Your task to perform on an android device: set default search engine in the chrome app Image 0: 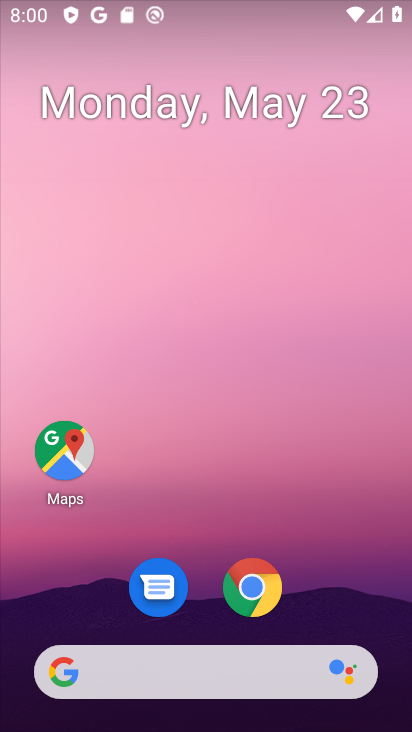
Step 0: click (264, 576)
Your task to perform on an android device: set default search engine in the chrome app Image 1: 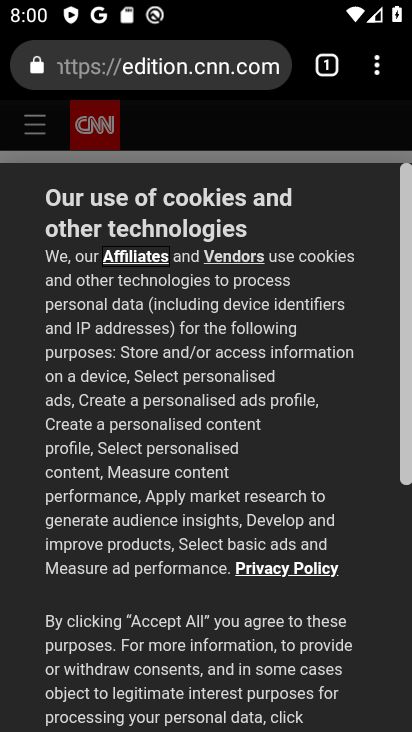
Step 1: drag from (370, 70) to (165, 630)
Your task to perform on an android device: set default search engine in the chrome app Image 2: 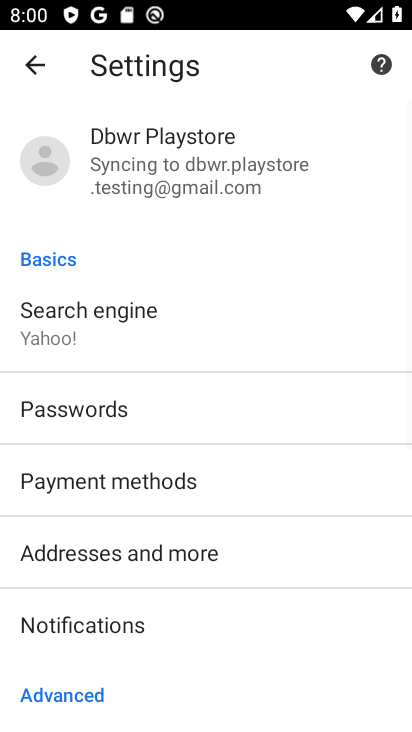
Step 2: drag from (140, 659) to (239, 92)
Your task to perform on an android device: set default search engine in the chrome app Image 3: 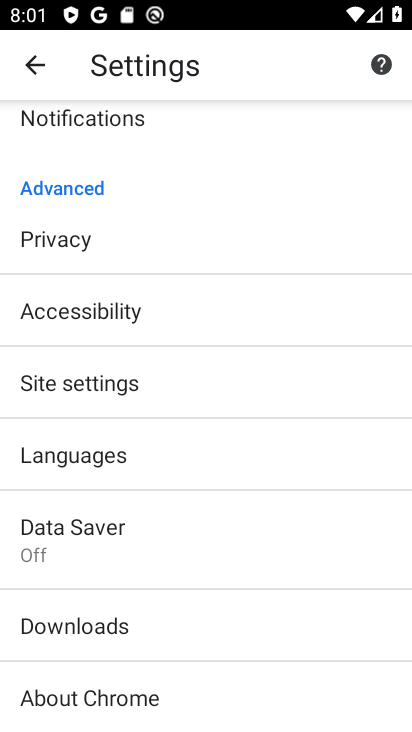
Step 3: drag from (195, 621) to (325, 107)
Your task to perform on an android device: set default search engine in the chrome app Image 4: 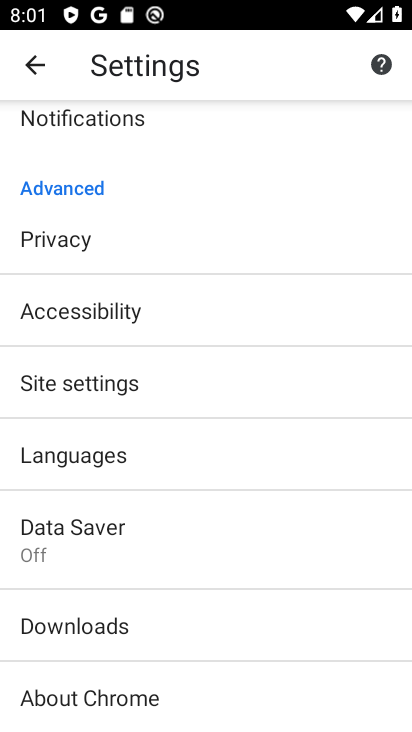
Step 4: drag from (145, 190) to (156, 726)
Your task to perform on an android device: set default search engine in the chrome app Image 5: 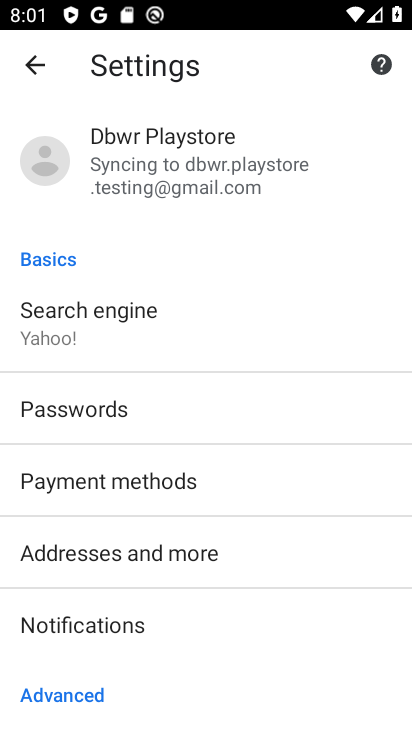
Step 5: click (115, 334)
Your task to perform on an android device: set default search engine in the chrome app Image 6: 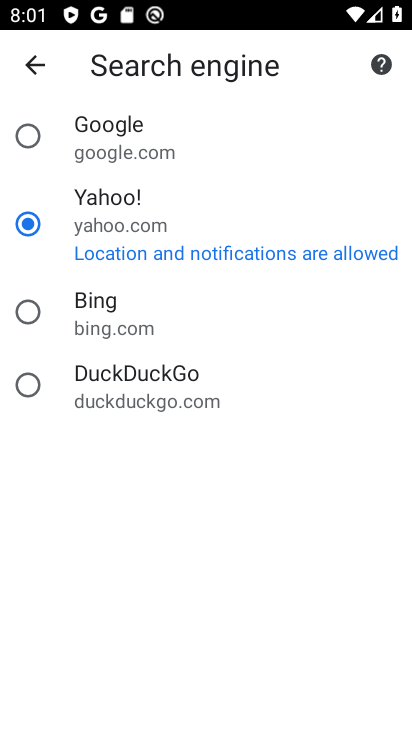
Step 6: click (33, 132)
Your task to perform on an android device: set default search engine in the chrome app Image 7: 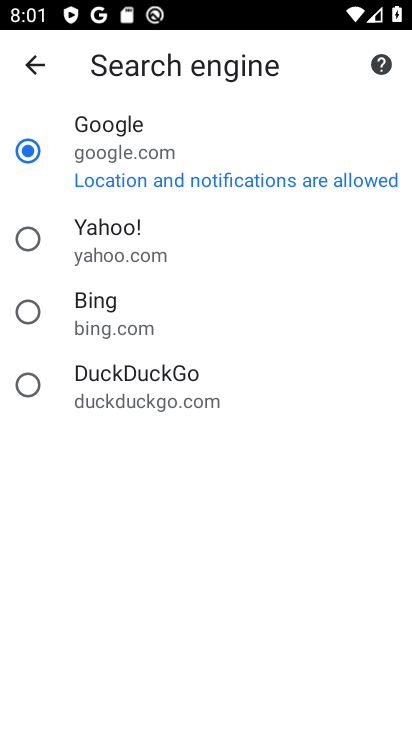
Step 7: task complete